Your task to perform on an android device: Is it going to rain tomorrow? Image 0: 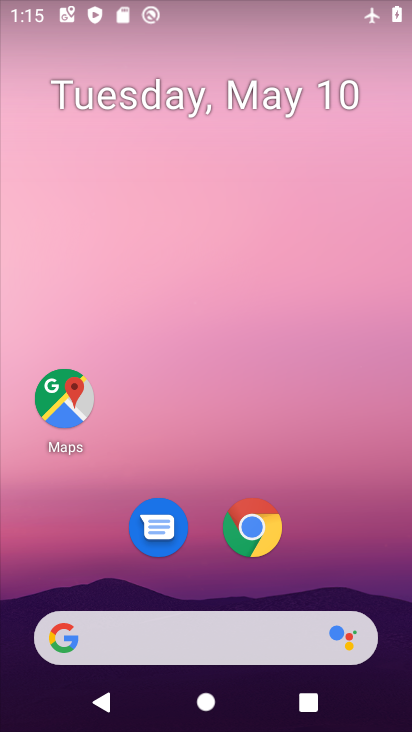
Step 0: click (241, 525)
Your task to perform on an android device: Is it going to rain tomorrow? Image 1: 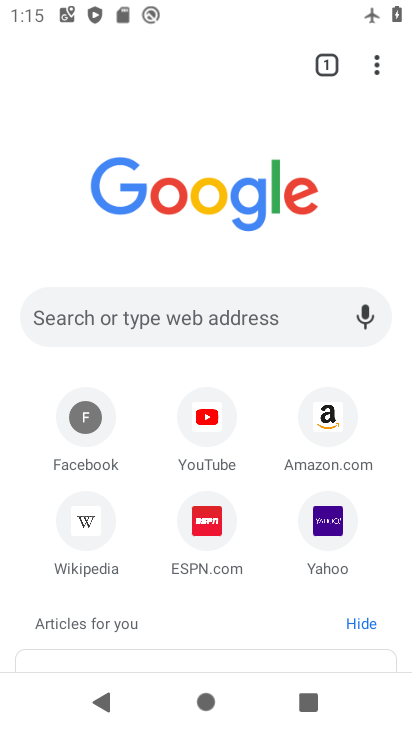
Step 1: click (185, 322)
Your task to perform on an android device: Is it going to rain tomorrow? Image 2: 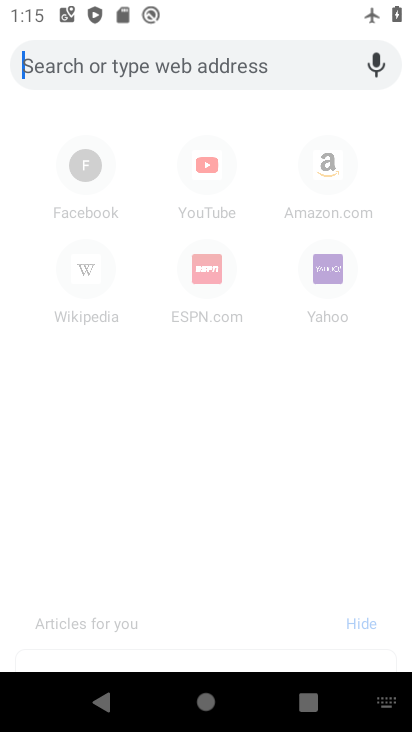
Step 2: type "Is it going to rain tomorrow?"
Your task to perform on an android device: Is it going to rain tomorrow? Image 3: 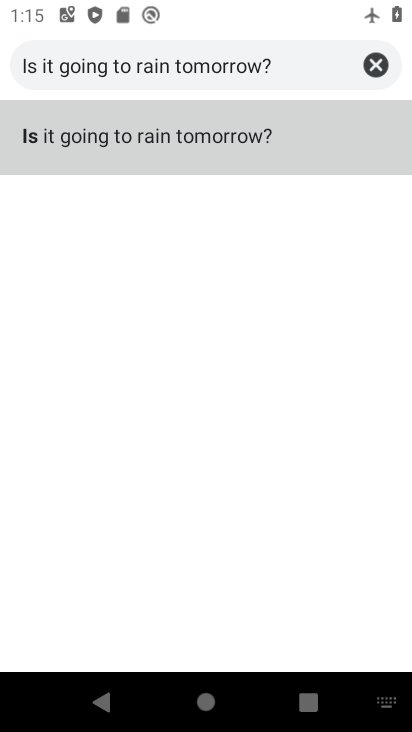
Step 3: click (136, 149)
Your task to perform on an android device: Is it going to rain tomorrow? Image 4: 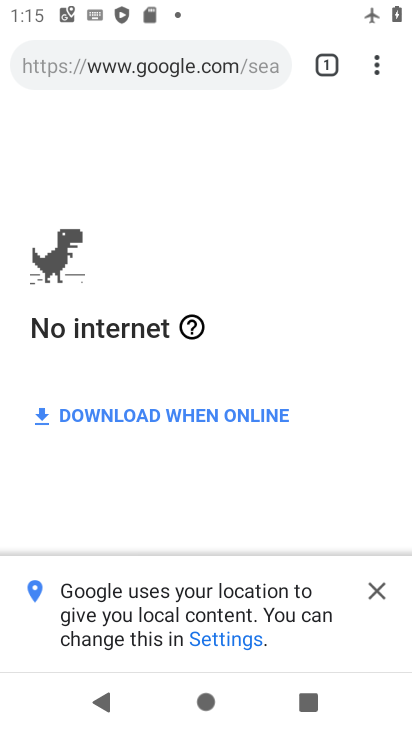
Step 4: task complete